Your task to perform on an android device: turn off wifi Image 0: 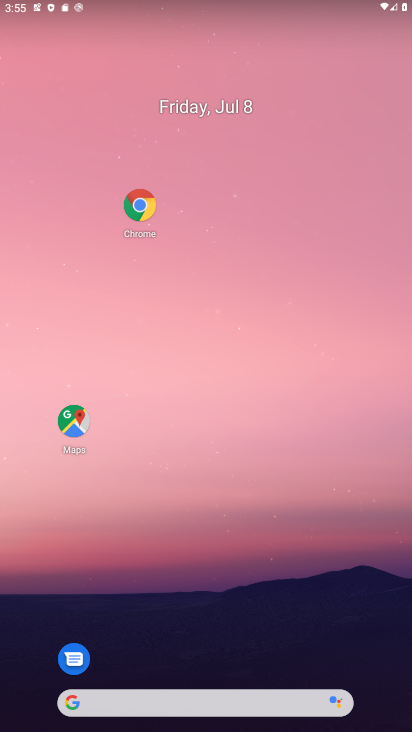
Step 0: drag from (203, 637) to (205, 174)
Your task to perform on an android device: turn off wifi Image 1: 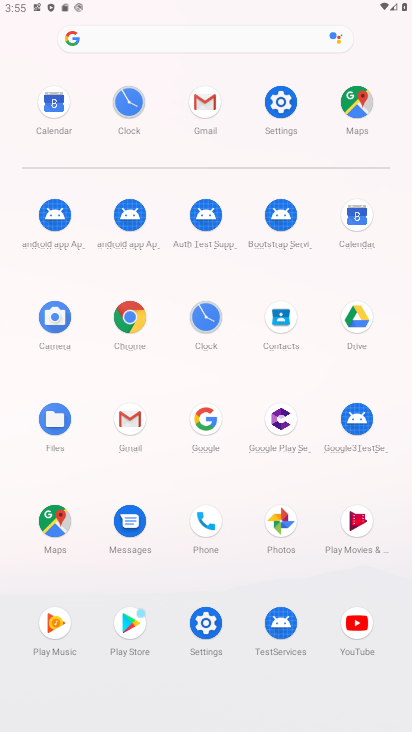
Step 1: click (268, 104)
Your task to perform on an android device: turn off wifi Image 2: 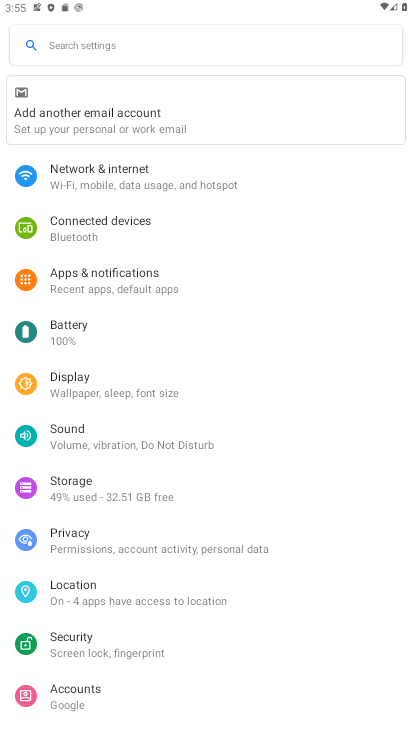
Step 2: click (139, 169)
Your task to perform on an android device: turn off wifi Image 3: 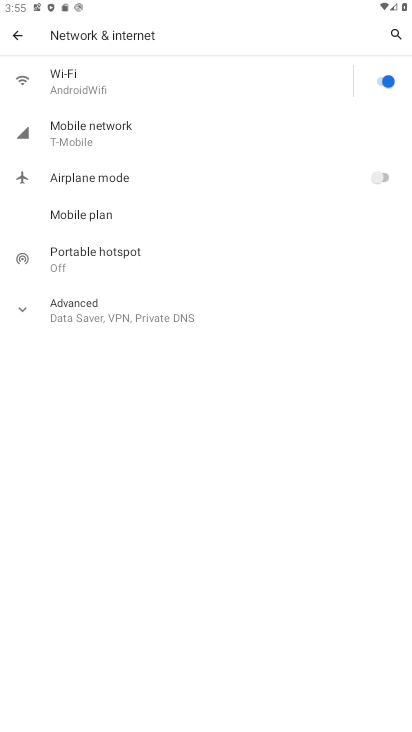
Step 3: click (376, 86)
Your task to perform on an android device: turn off wifi Image 4: 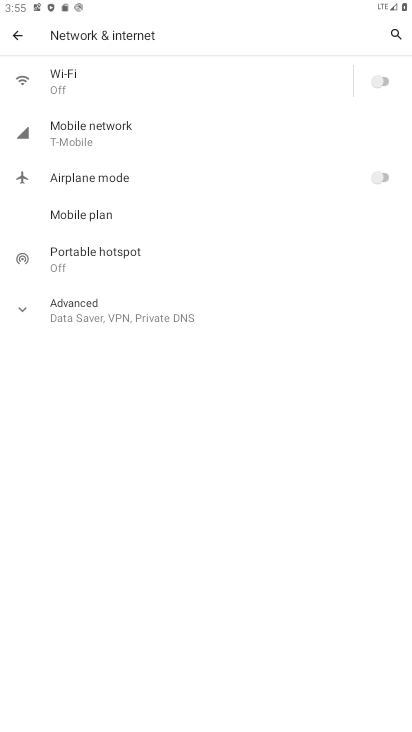
Step 4: task complete